Your task to perform on an android device: Go to display settings Image 0: 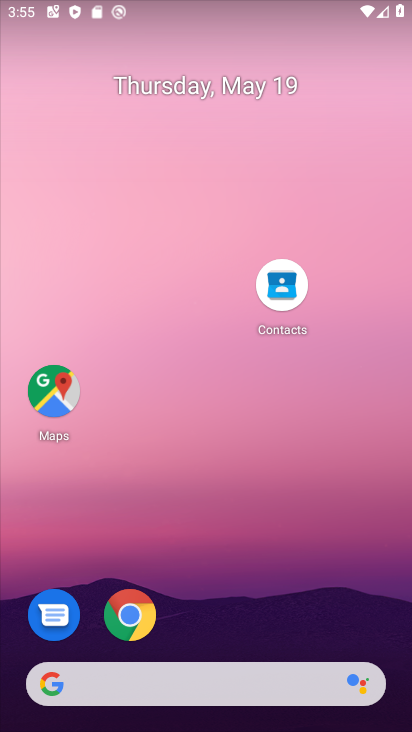
Step 0: drag from (216, 689) to (193, 79)
Your task to perform on an android device: Go to display settings Image 1: 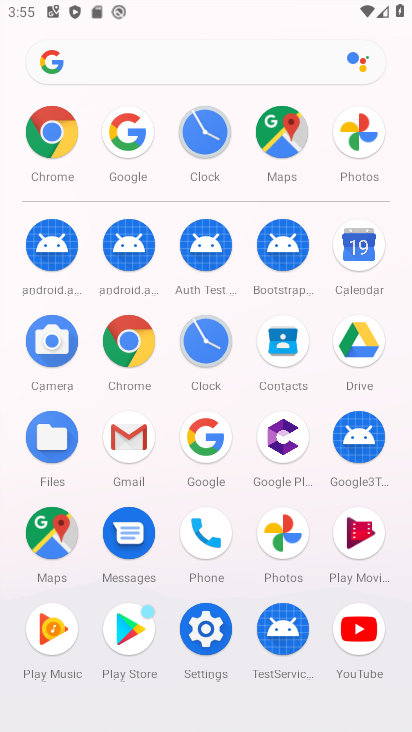
Step 1: click (199, 651)
Your task to perform on an android device: Go to display settings Image 2: 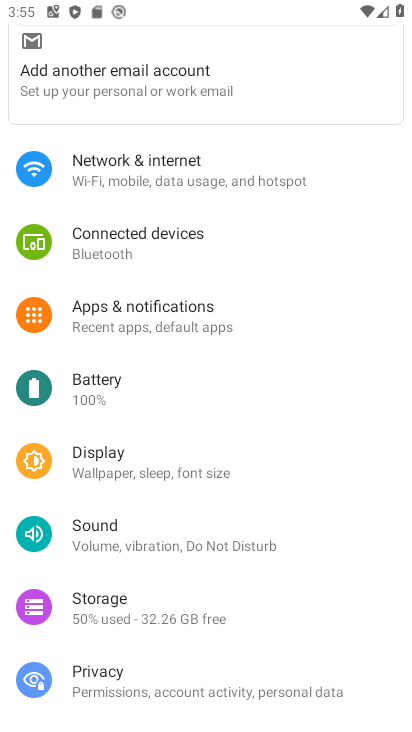
Step 2: drag from (175, 581) to (220, 291)
Your task to perform on an android device: Go to display settings Image 3: 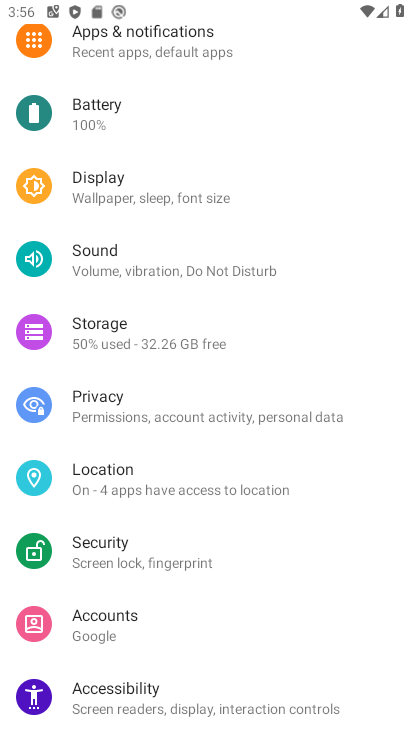
Step 3: click (250, 191)
Your task to perform on an android device: Go to display settings Image 4: 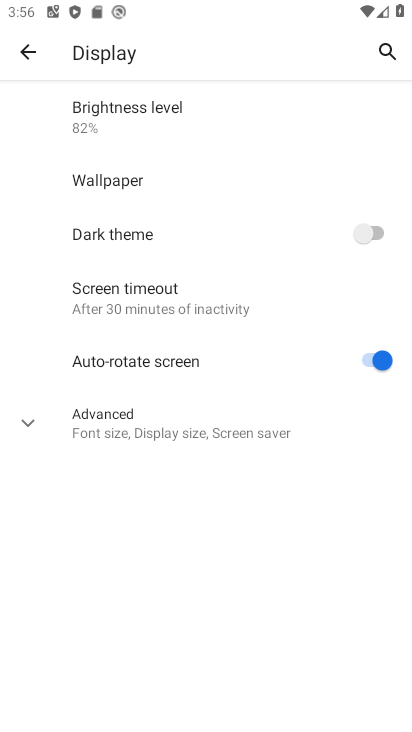
Step 4: task complete